Your task to perform on an android device: Open notification settings Image 0: 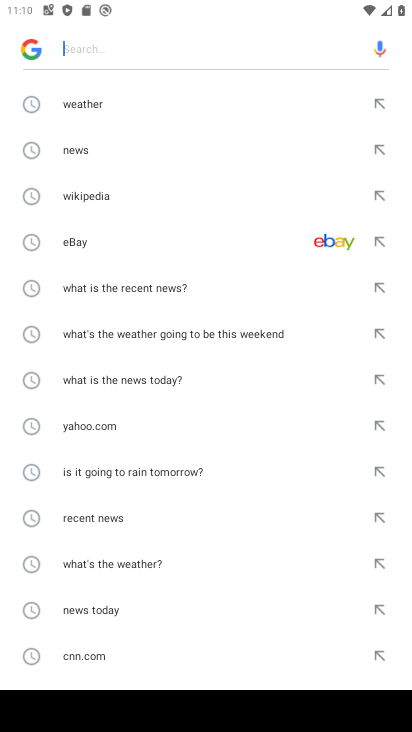
Step 0: press home button
Your task to perform on an android device: Open notification settings Image 1: 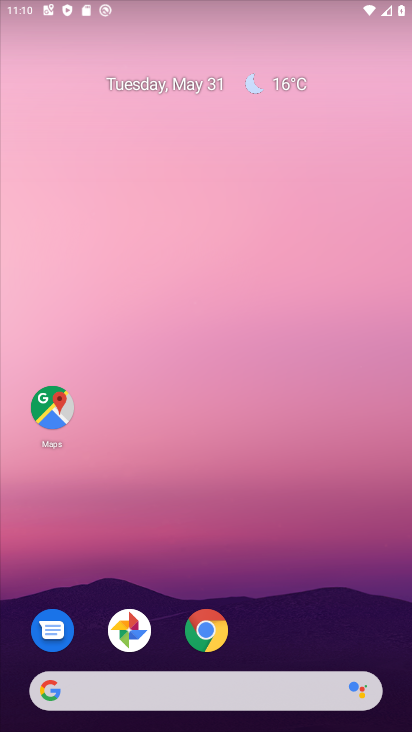
Step 1: drag from (261, 607) to (231, 201)
Your task to perform on an android device: Open notification settings Image 2: 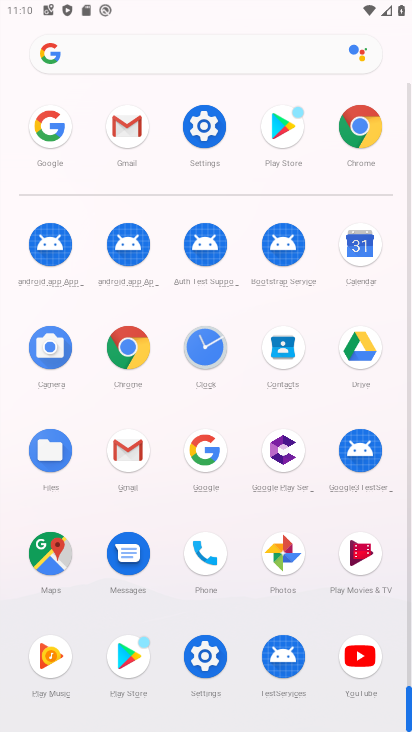
Step 2: click (204, 126)
Your task to perform on an android device: Open notification settings Image 3: 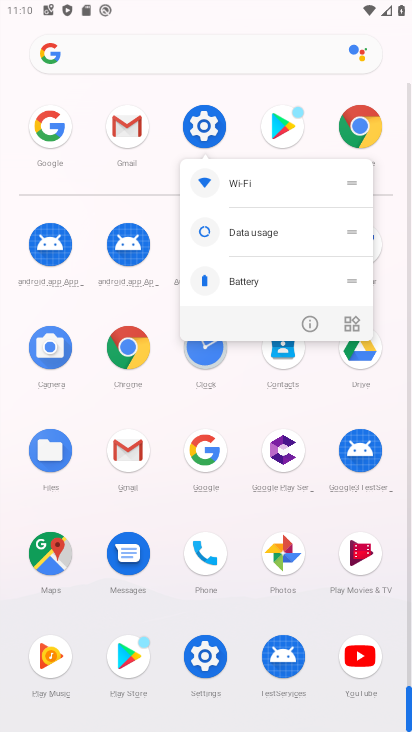
Step 3: click (204, 114)
Your task to perform on an android device: Open notification settings Image 4: 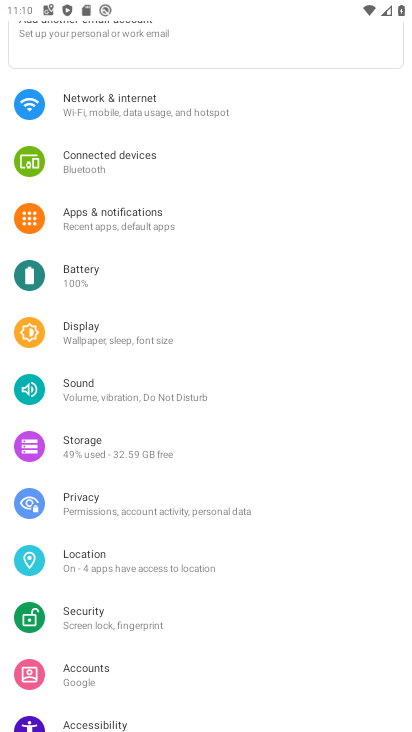
Step 4: click (141, 103)
Your task to perform on an android device: Open notification settings Image 5: 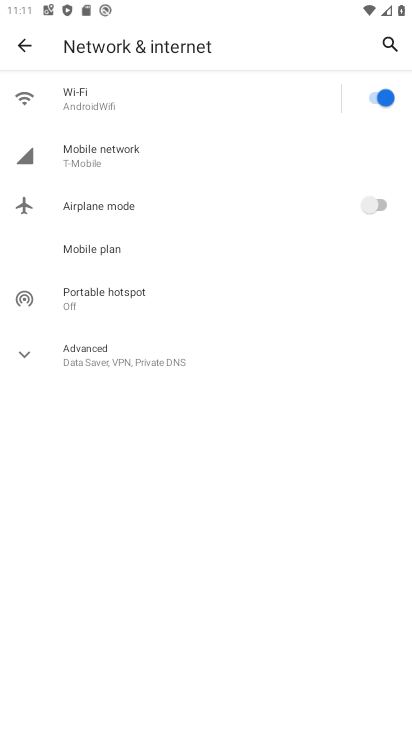
Step 5: click (38, 32)
Your task to perform on an android device: Open notification settings Image 6: 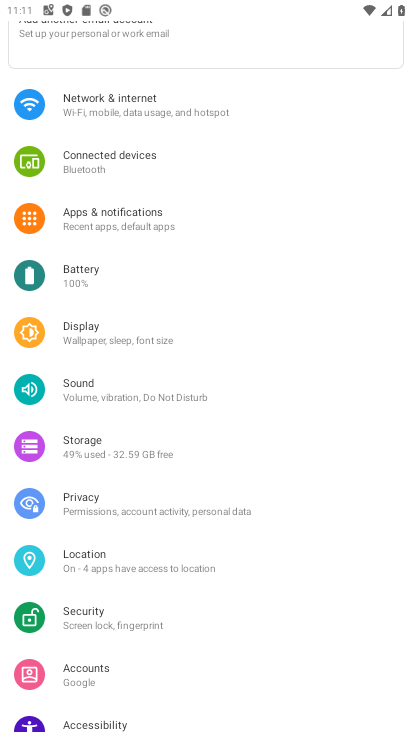
Step 6: click (134, 219)
Your task to perform on an android device: Open notification settings Image 7: 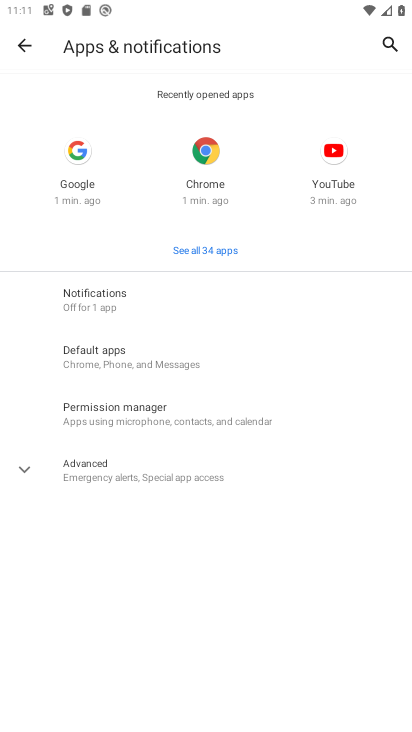
Step 7: click (132, 287)
Your task to perform on an android device: Open notification settings Image 8: 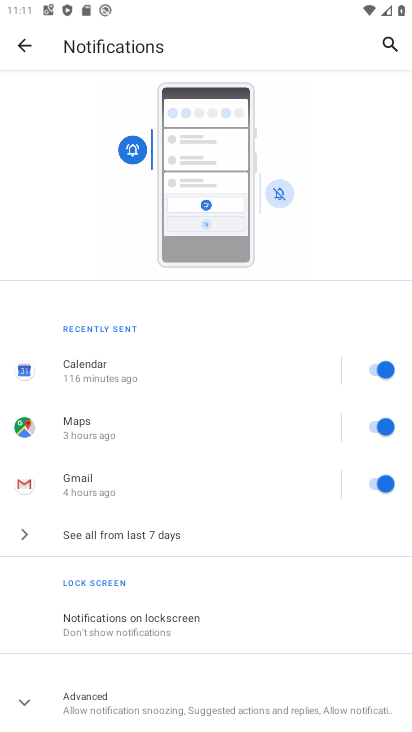
Step 8: task complete